Your task to perform on an android device: Go to eBay Image 0: 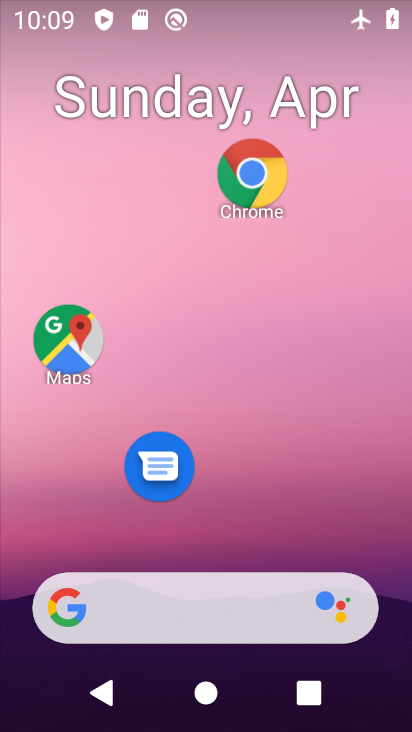
Step 0: drag from (338, 451) to (383, 0)
Your task to perform on an android device: Go to eBay Image 1: 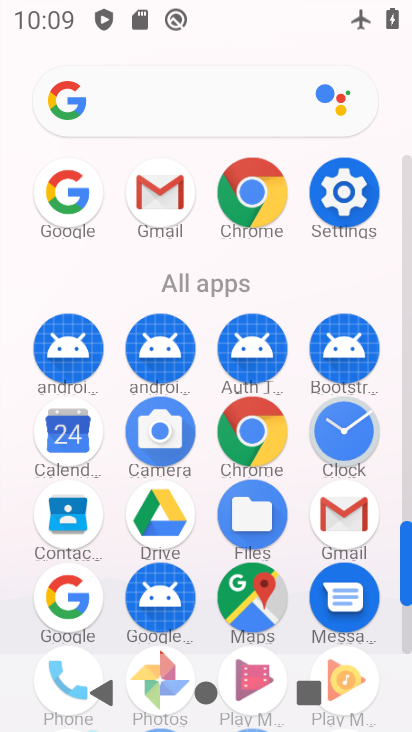
Step 1: click (264, 177)
Your task to perform on an android device: Go to eBay Image 2: 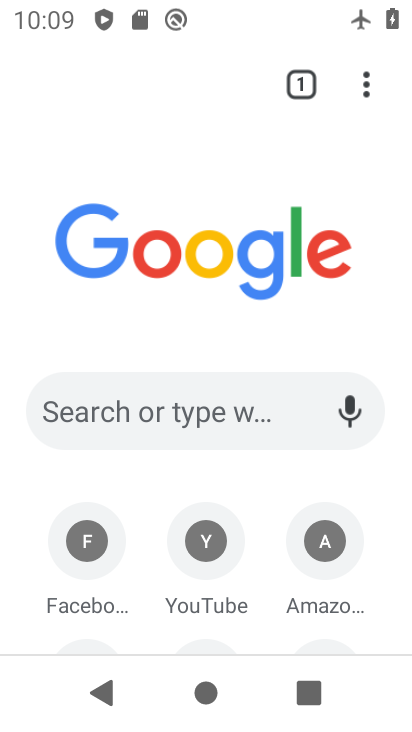
Step 2: task complete